Your task to perform on an android device: Search for "razer kraken" on costco, select the first entry, and add it to the cart. Image 0: 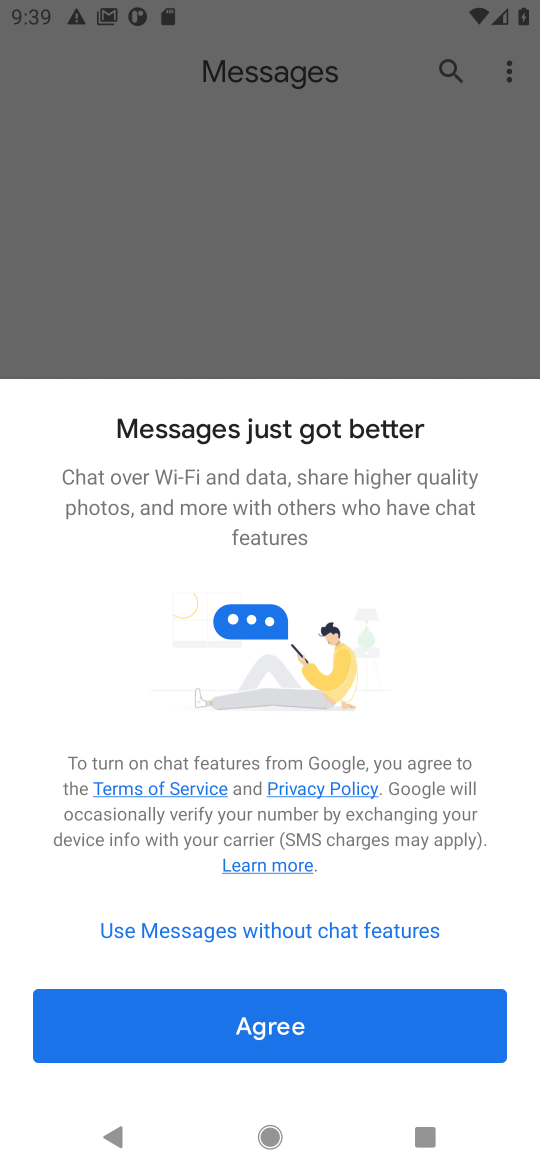
Step 0: press home button
Your task to perform on an android device: Search for "razer kraken" on costco, select the first entry, and add it to the cart. Image 1: 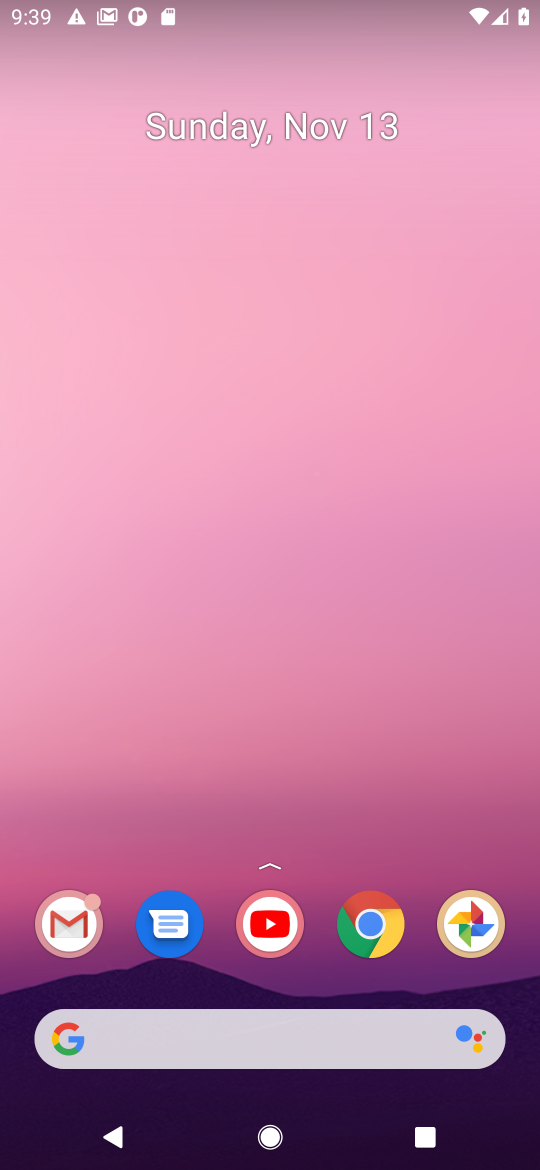
Step 1: click (375, 927)
Your task to perform on an android device: Search for "razer kraken" on costco, select the first entry, and add it to the cart. Image 2: 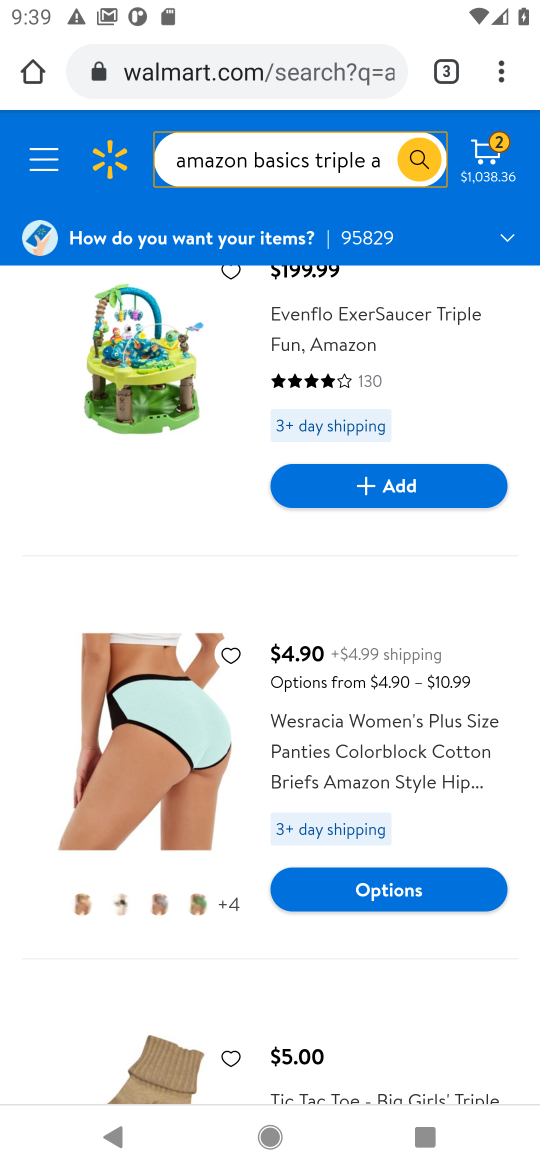
Step 2: click (267, 67)
Your task to perform on an android device: Search for "razer kraken" on costco, select the first entry, and add it to the cart. Image 3: 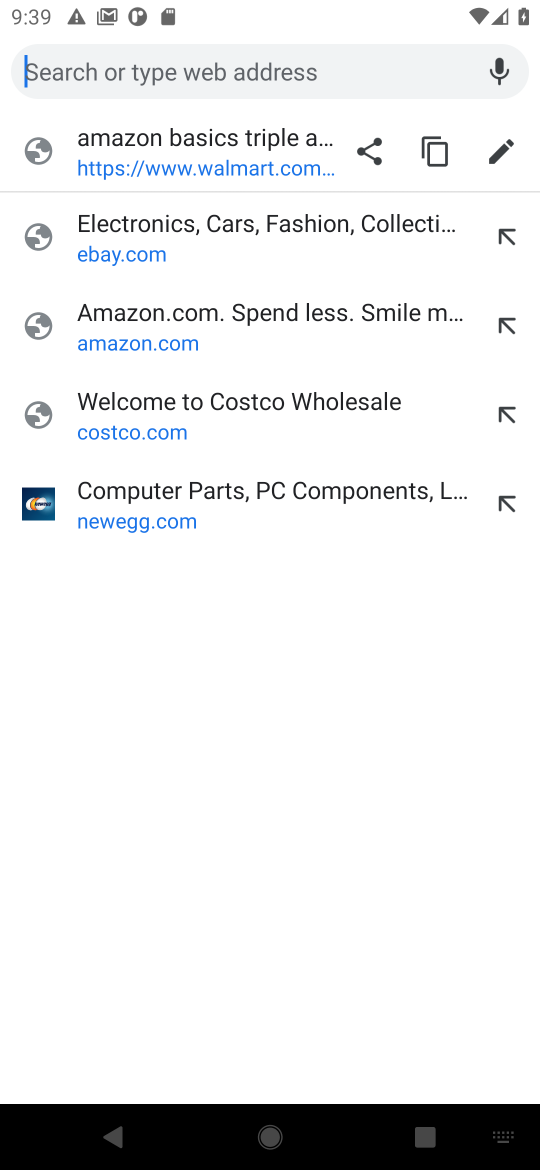
Step 3: click (115, 418)
Your task to perform on an android device: Search for "razer kraken" on costco, select the first entry, and add it to the cart. Image 4: 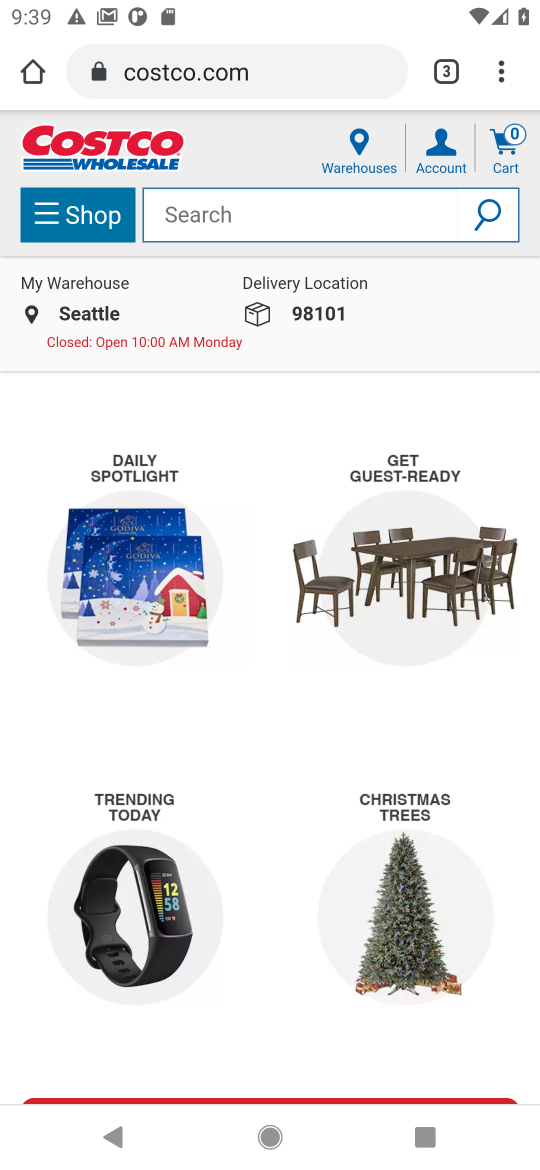
Step 4: click (223, 210)
Your task to perform on an android device: Search for "razer kraken" on costco, select the first entry, and add it to the cart. Image 5: 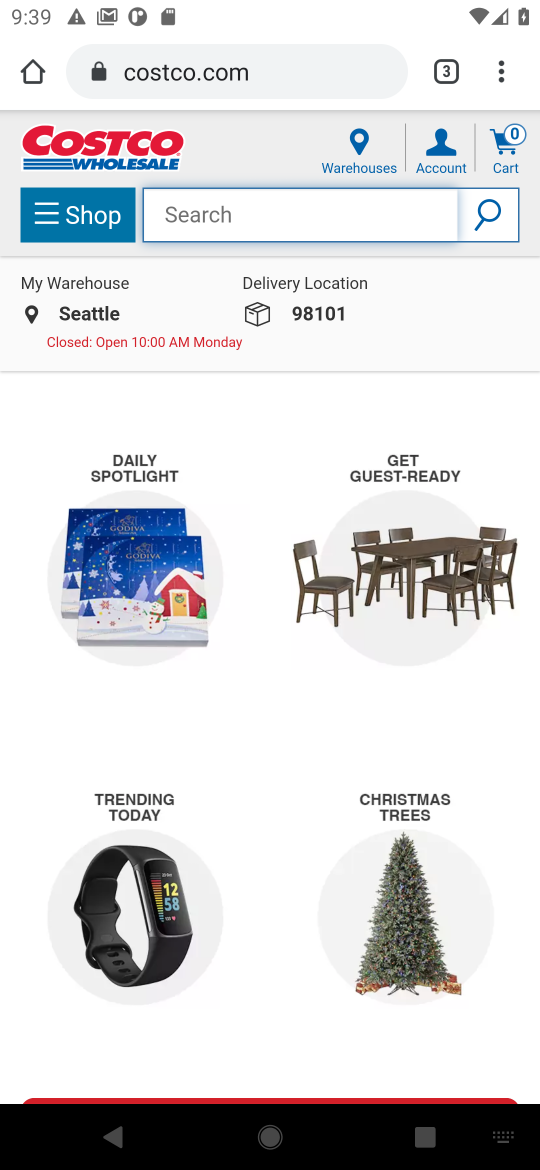
Step 5: type "razer kraken"
Your task to perform on an android device: Search for "razer kraken" on costco, select the first entry, and add it to the cart. Image 6: 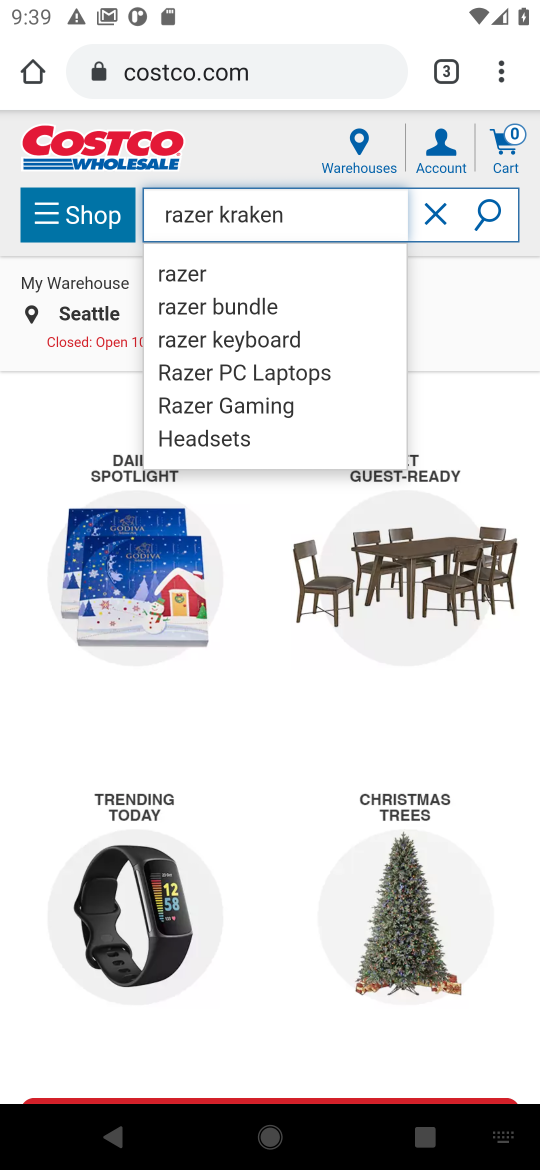
Step 6: click (482, 217)
Your task to perform on an android device: Search for "razer kraken" on costco, select the first entry, and add it to the cart. Image 7: 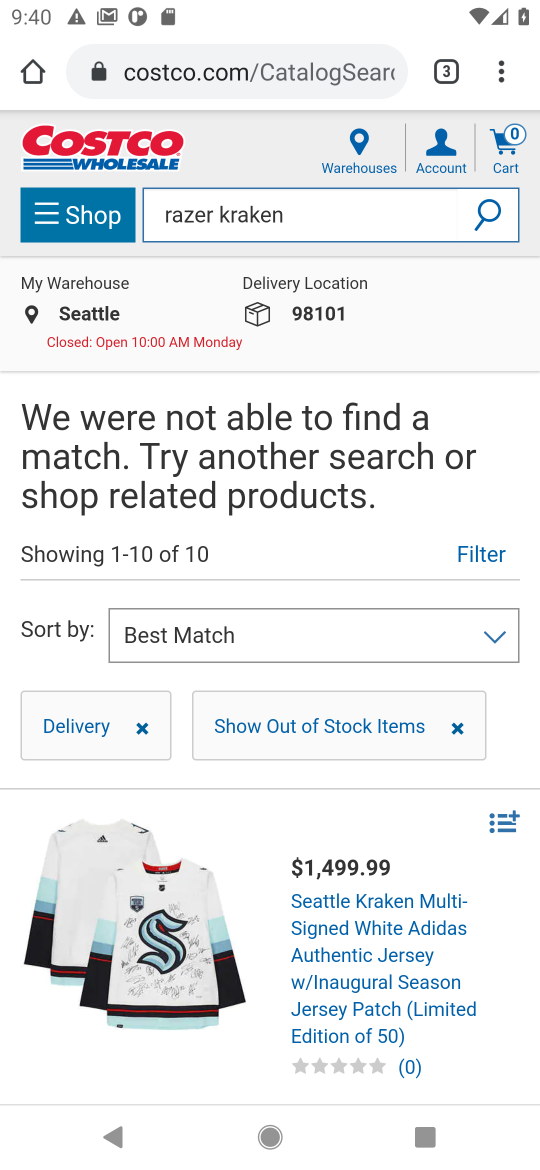
Step 7: task complete